Your task to perform on an android device: allow notifications from all sites in the chrome app Image 0: 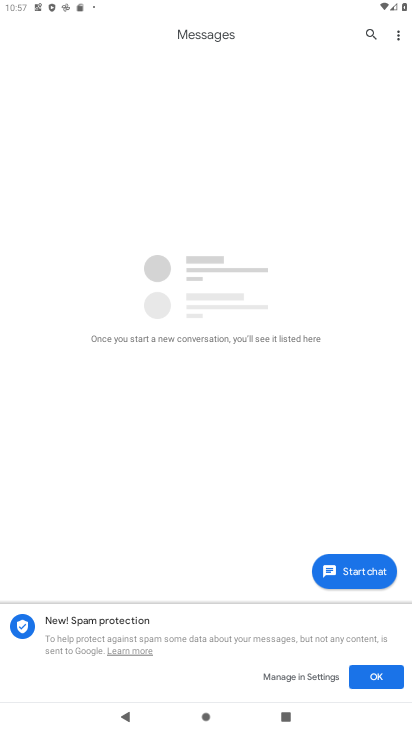
Step 0: press home button
Your task to perform on an android device: allow notifications from all sites in the chrome app Image 1: 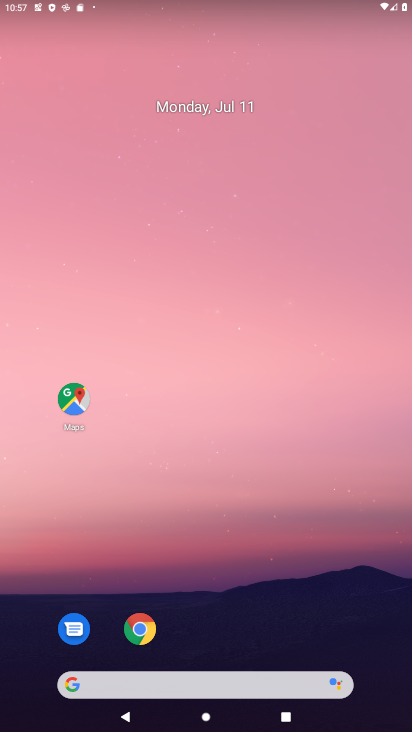
Step 1: drag from (220, 632) to (221, 211)
Your task to perform on an android device: allow notifications from all sites in the chrome app Image 2: 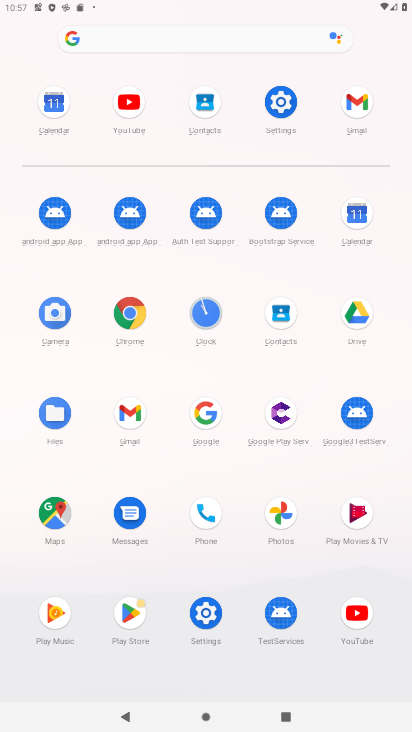
Step 2: click (139, 331)
Your task to perform on an android device: allow notifications from all sites in the chrome app Image 3: 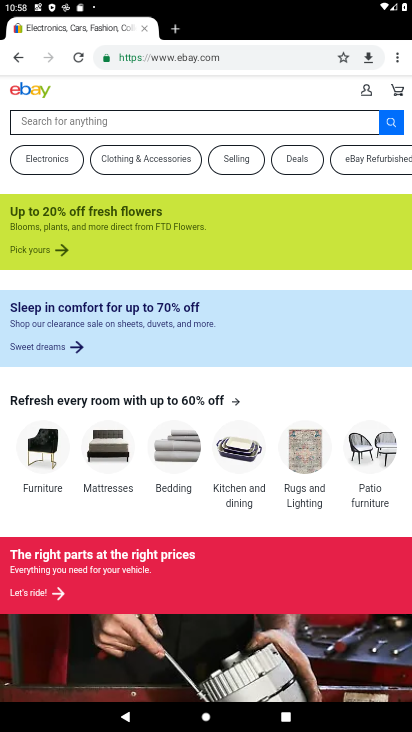
Step 3: click (403, 61)
Your task to perform on an android device: allow notifications from all sites in the chrome app Image 4: 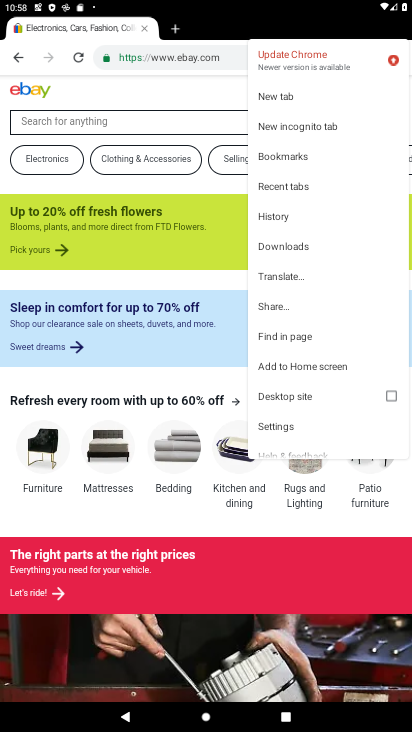
Step 4: click (291, 435)
Your task to perform on an android device: allow notifications from all sites in the chrome app Image 5: 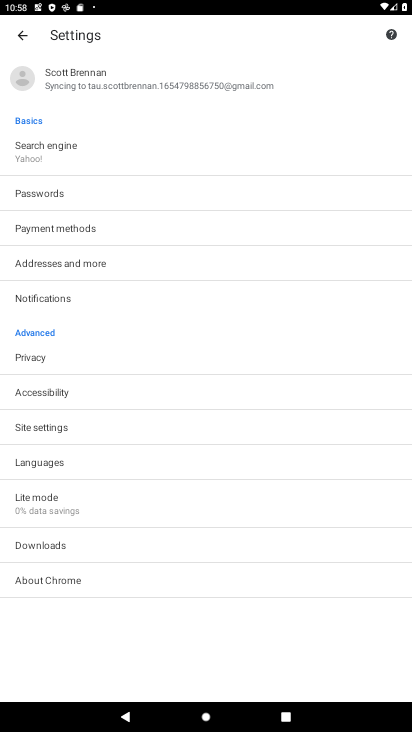
Step 5: click (88, 286)
Your task to perform on an android device: allow notifications from all sites in the chrome app Image 6: 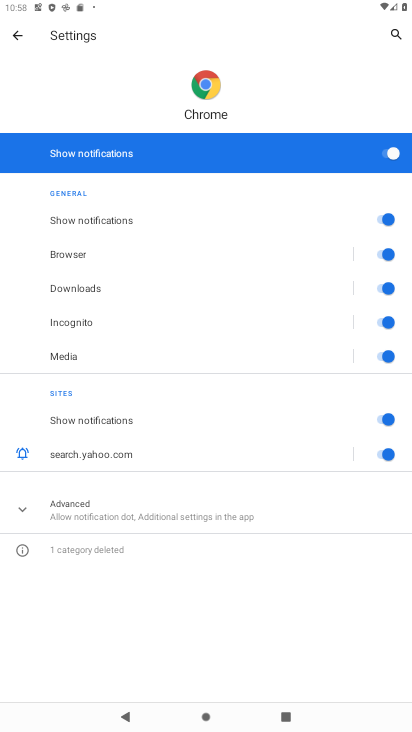
Step 6: task complete